Your task to perform on an android device: Open Google Maps and go to "Timeline" Image 0: 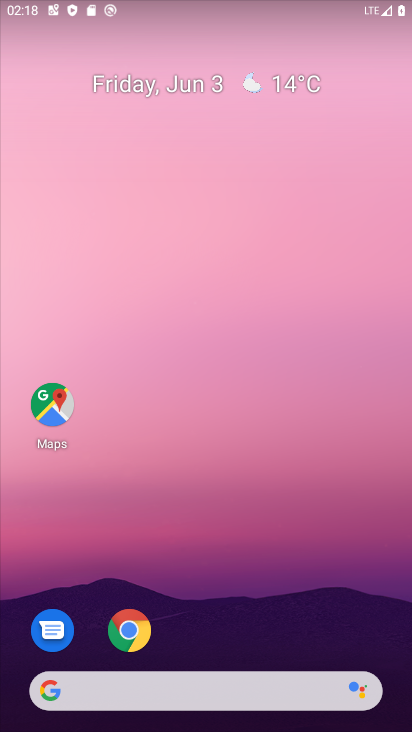
Step 0: click (61, 407)
Your task to perform on an android device: Open Google Maps and go to "Timeline" Image 1: 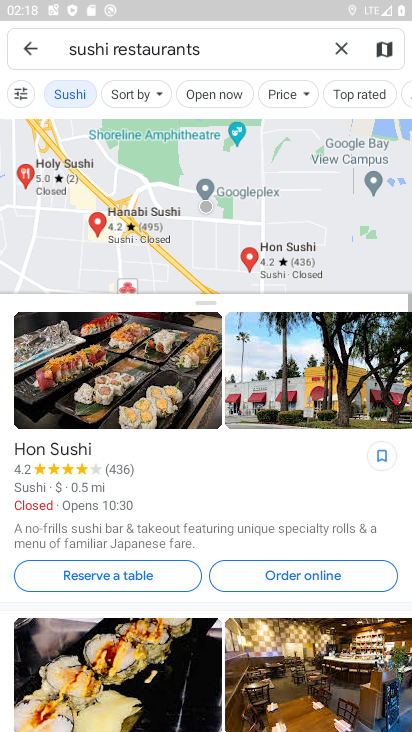
Step 1: click (28, 44)
Your task to perform on an android device: Open Google Maps and go to "Timeline" Image 2: 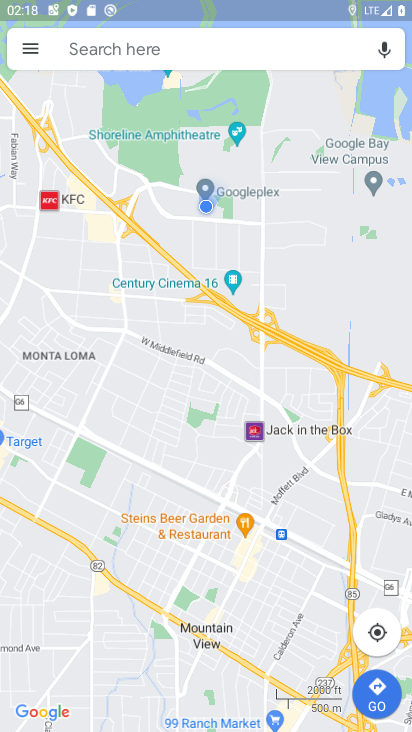
Step 2: click (25, 46)
Your task to perform on an android device: Open Google Maps and go to "Timeline" Image 3: 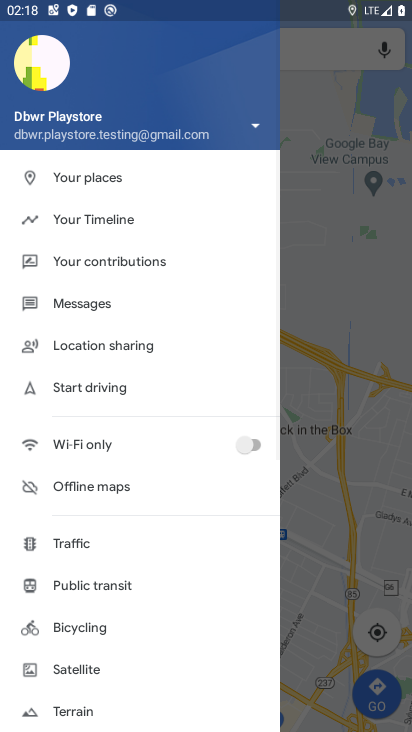
Step 3: click (54, 216)
Your task to perform on an android device: Open Google Maps and go to "Timeline" Image 4: 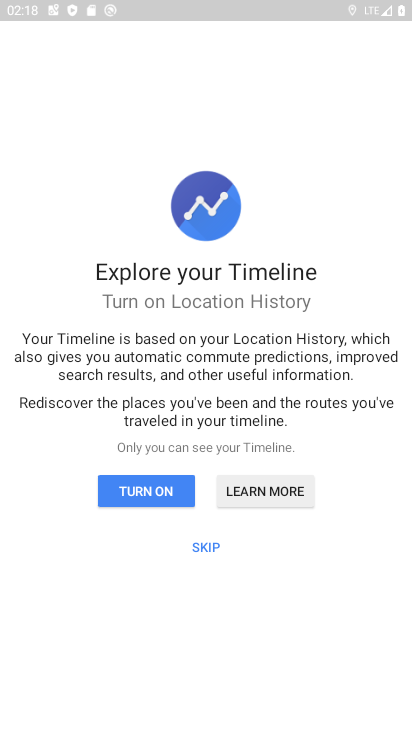
Step 4: click (123, 505)
Your task to perform on an android device: Open Google Maps and go to "Timeline" Image 5: 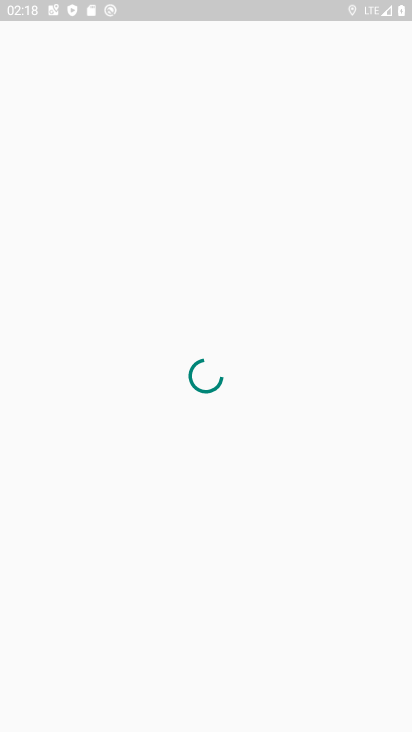
Step 5: task complete